Your task to perform on an android device: open a bookmark in the chrome app Image 0: 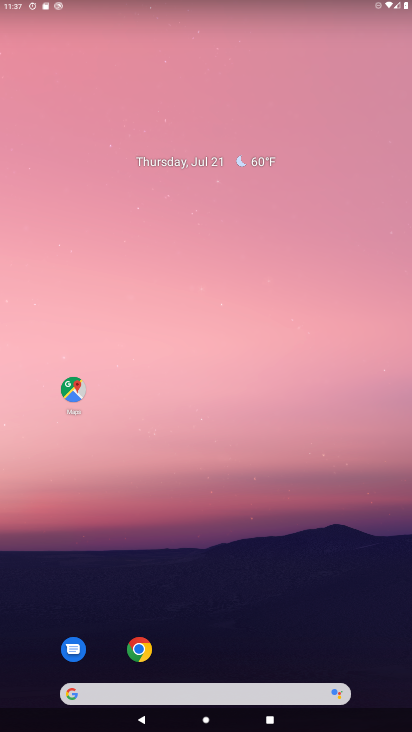
Step 0: click (140, 649)
Your task to perform on an android device: open a bookmark in the chrome app Image 1: 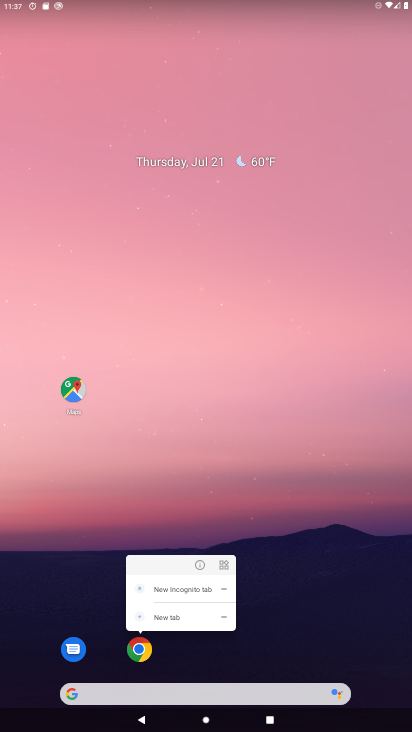
Step 1: click (141, 649)
Your task to perform on an android device: open a bookmark in the chrome app Image 2: 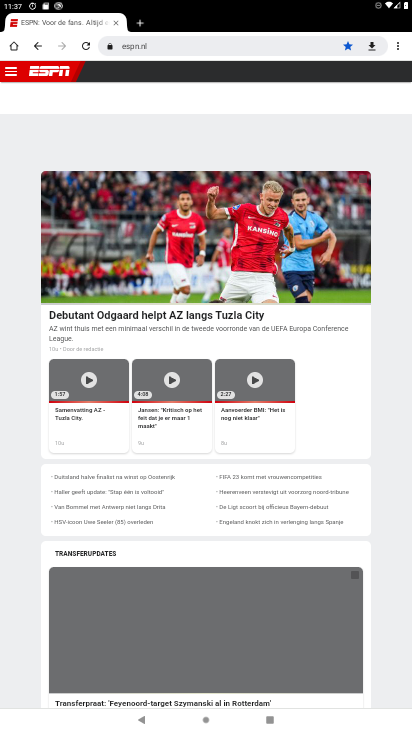
Step 2: click (396, 43)
Your task to perform on an android device: open a bookmark in the chrome app Image 3: 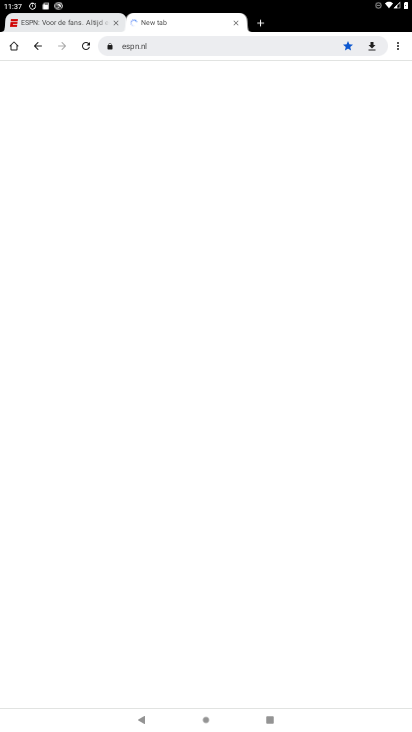
Step 3: click (396, 43)
Your task to perform on an android device: open a bookmark in the chrome app Image 4: 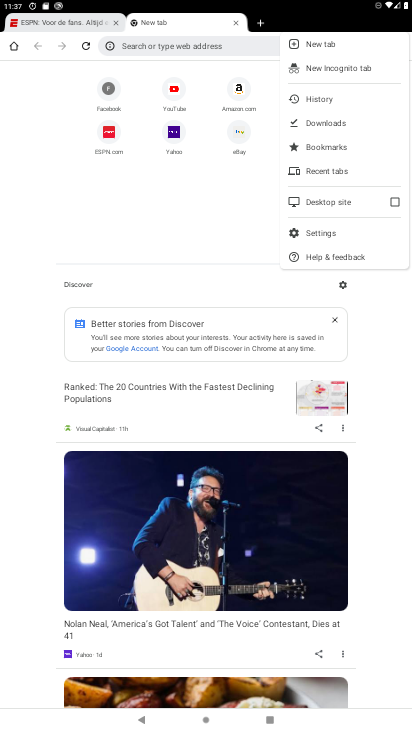
Step 4: click (324, 229)
Your task to perform on an android device: open a bookmark in the chrome app Image 5: 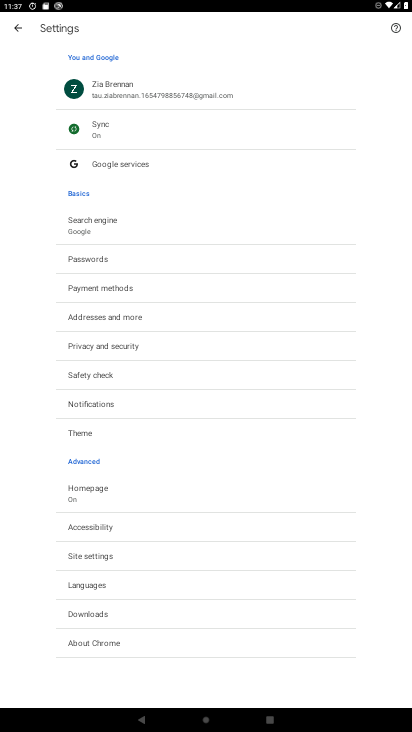
Step 5: task complete